Your task to perform on an android device: toggle data saver in the chrome app Image 0: 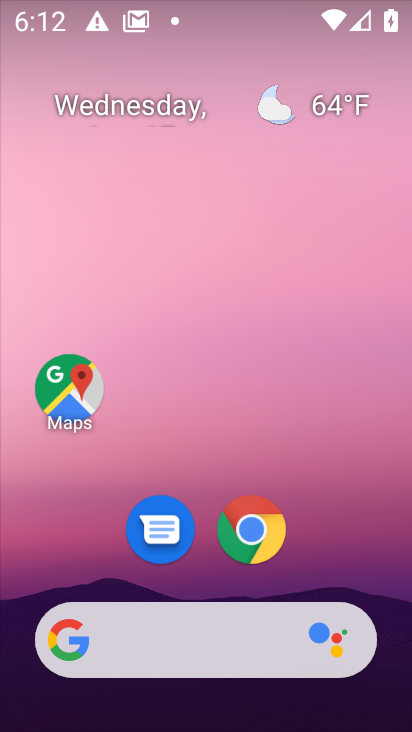
Step 0: click (249, 530)
Your task to perform on an android device: toggle data saver in the chrome app Image 1: 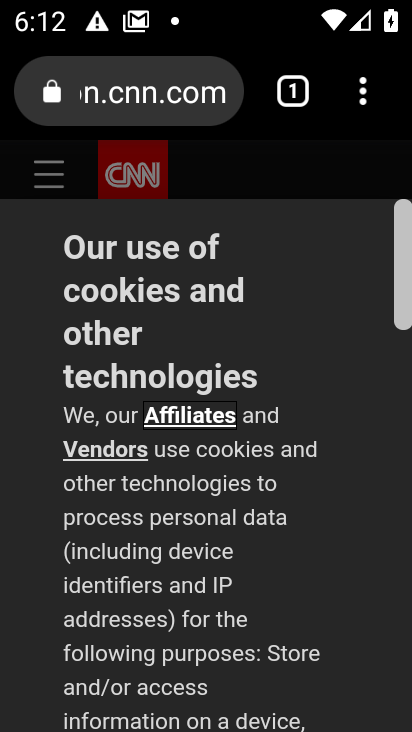
Step 1: click (362, 106)
Your task to perform on an android device: toggle data saver in the chrome app Image 2: 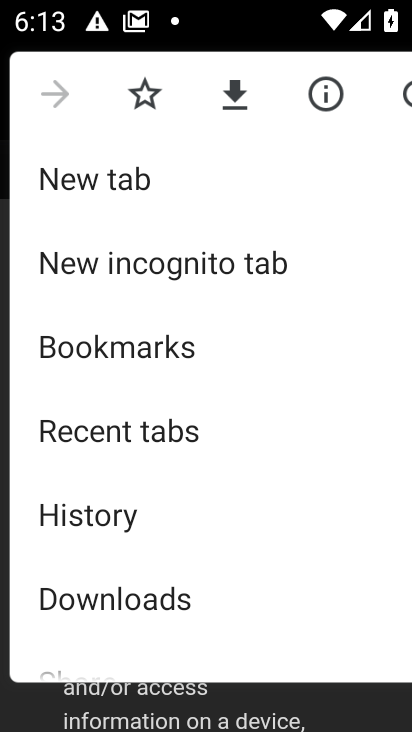
Step 2: click (192, 236)
Your task to perform on an android device: toggle data saver in the chrome app Image 3: 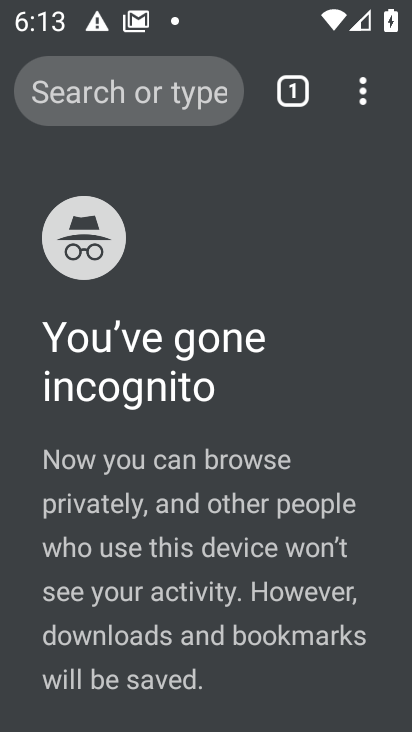
Step 3: click (292, 89)
Your task to perform on an android device: toggle data saver in the chrome app Image 4: 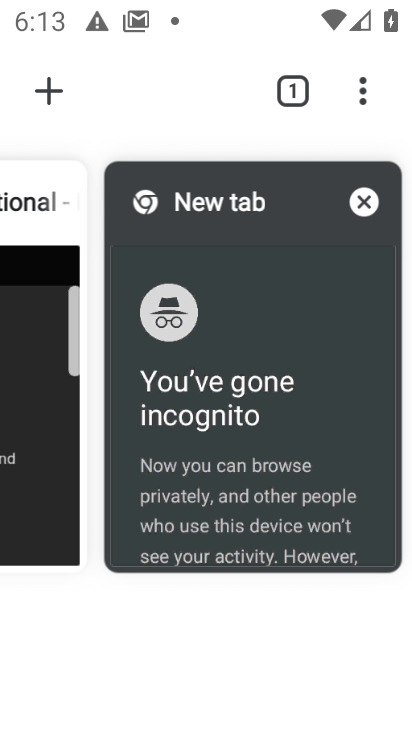
Step 4: click (367, 193)
Your task to perform on an android device: toggle data saver in the chrome app Image 5: 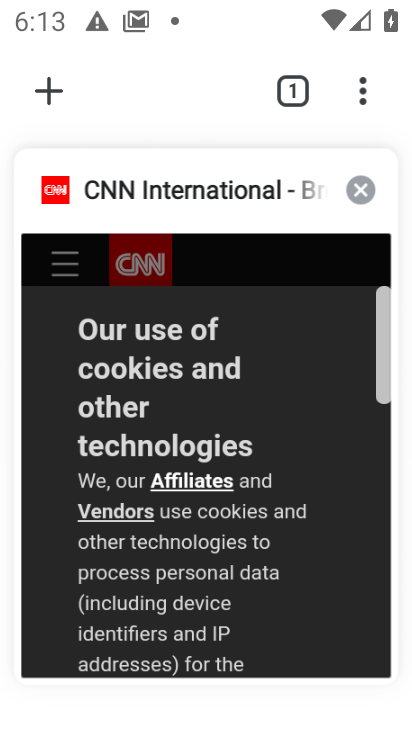
Step 5: click (338, 193)
Your task to perform on an android device: toggle data saver in the chrome app Image 6: 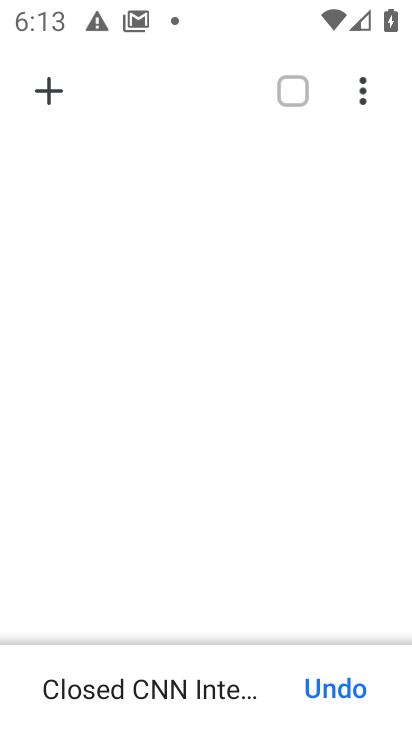
Step 6: click (366, 191)
Your task to perform on an android device: toggle data saver in the chrome app Image 7: 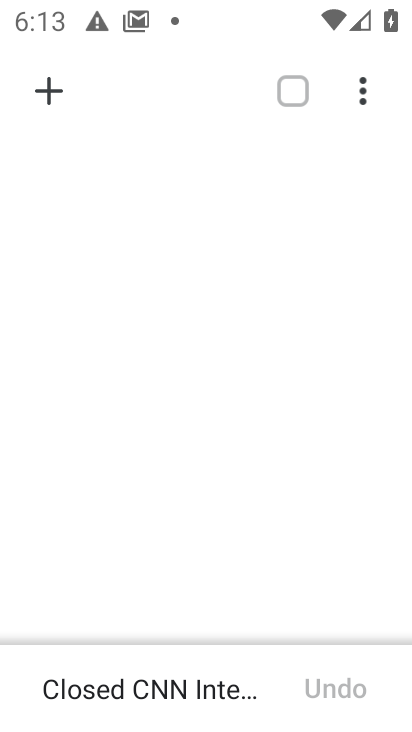
Step 7: click (46, 91)
Your task to perform on an android device: toggle data saver in the chrome app Image 8: 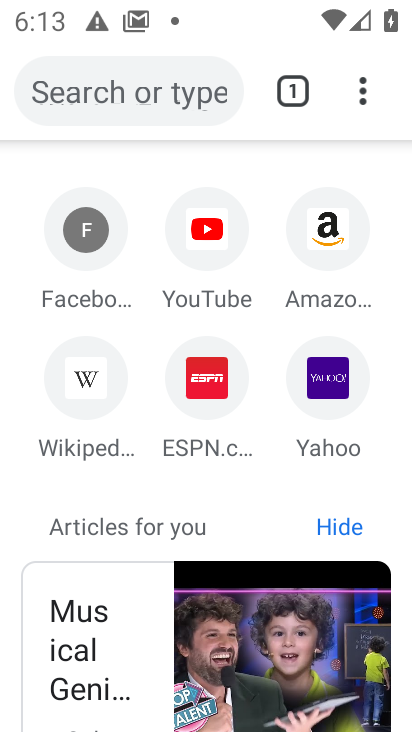
Step 8: click (361, 90)
Your task to perform on an android device: toggle data saver in the chrome app Image 9: 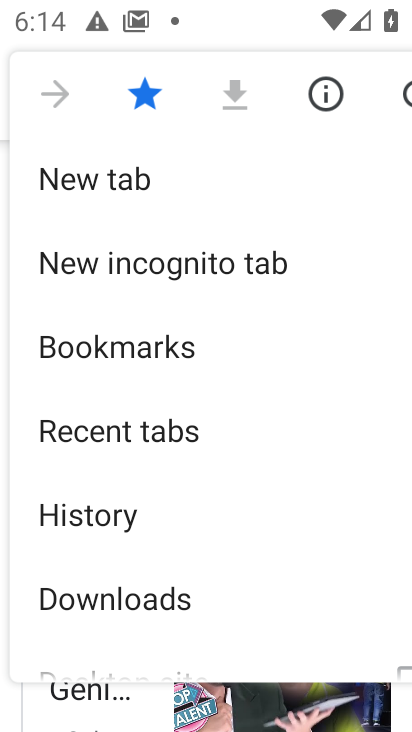
Step 9: drag from (247, 568) to (195, 133)
Your task to perform on an android device: toggle data saver in the chrome app Image 10: 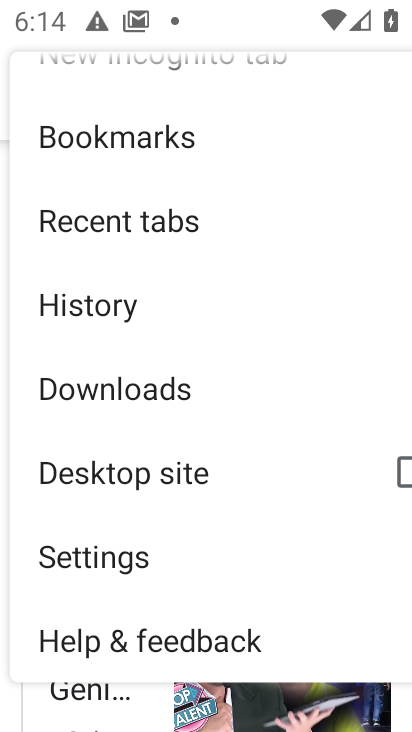
Step 10: click (78, 553)
Your task to perform on an android device: toggle data saver in the chrome app Image 11: 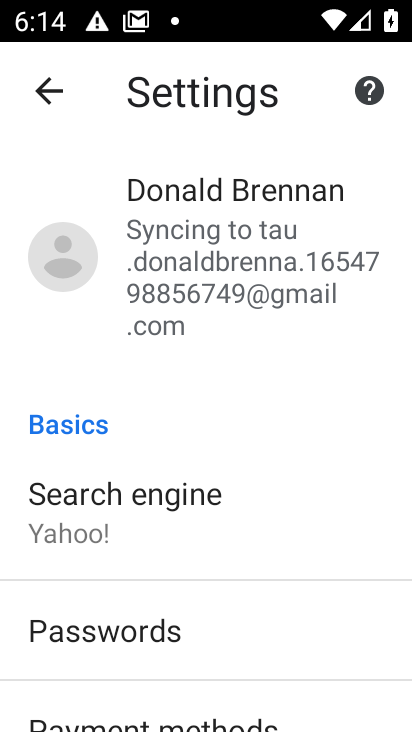
Step 11: drag from (239, 637) to (237, 328)
Your task to perform on an android device: toggle data saver in the chrome app Image 12: 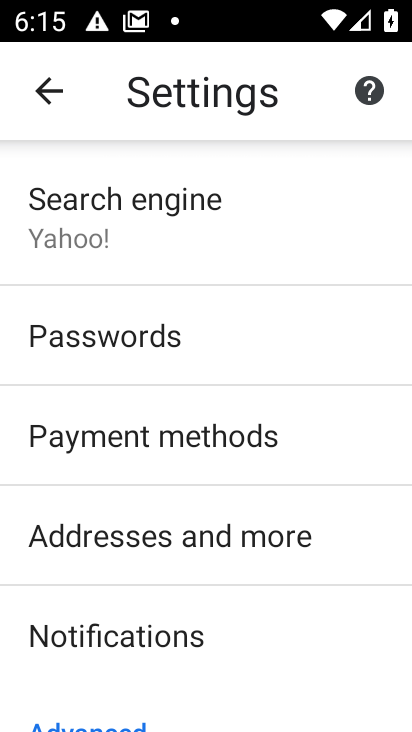
Step 12: drag from (199, 531) to (183, 209)
Your task to perform on an android device: toggle data saver in the chrome app Image 13: 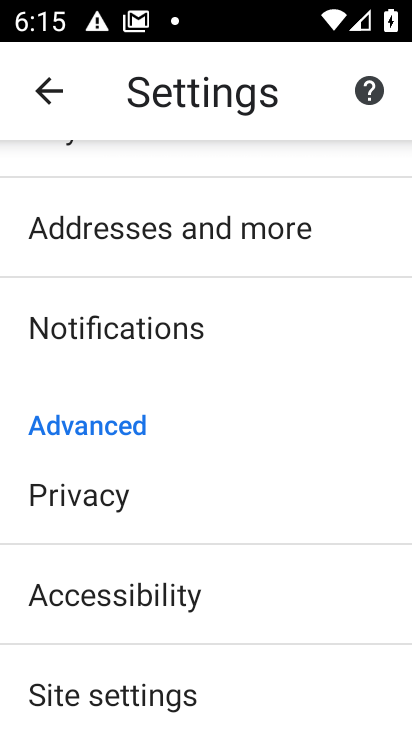
Step 13: drag from (174, 615) to (162, 346)
Your task to perform on an android device: toggle data saver in the chrome app Image 14: 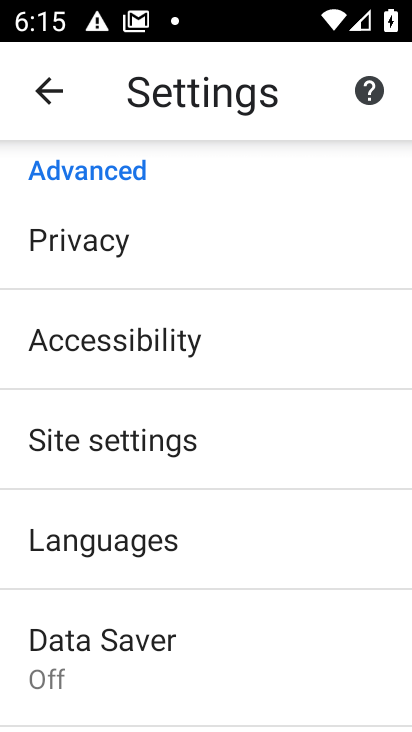
Step 14: click (133, 641)
Your task to perform on an android device: toggle data saver in the chrome app Image 15: 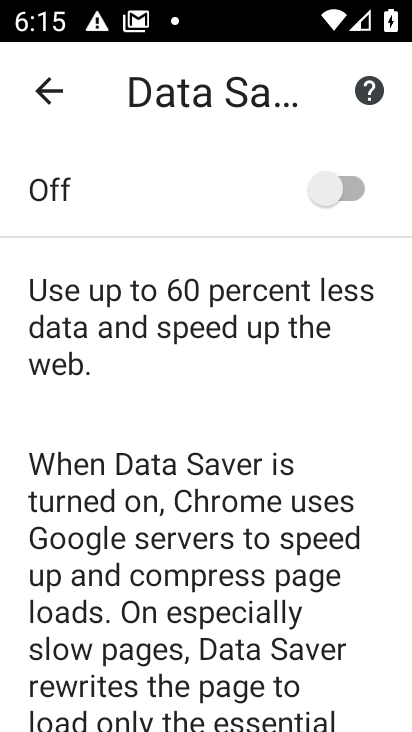
Step 15: click (349, 183)
Your task to perform on an android device: toggle data saver in the chrome app Image 16: 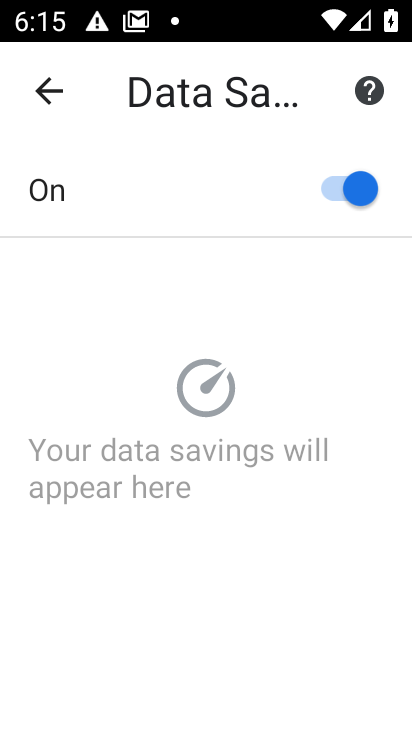
Step 16: task complete